Your task to perform on an android device: What is the news today? Image 0: 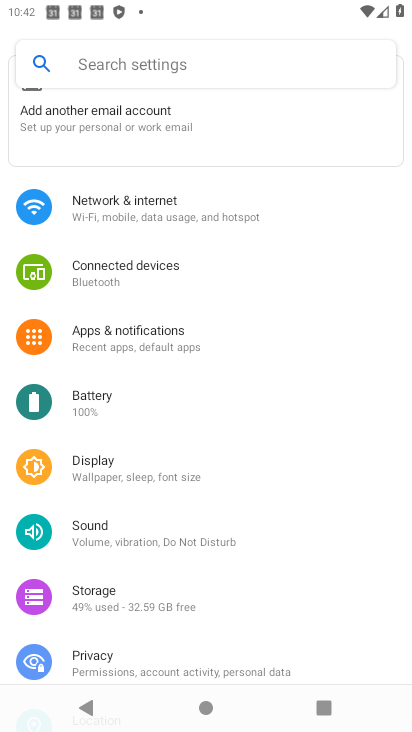
Step 0: press home button
Your task to perform on an android device: What is the news today? Image 1: 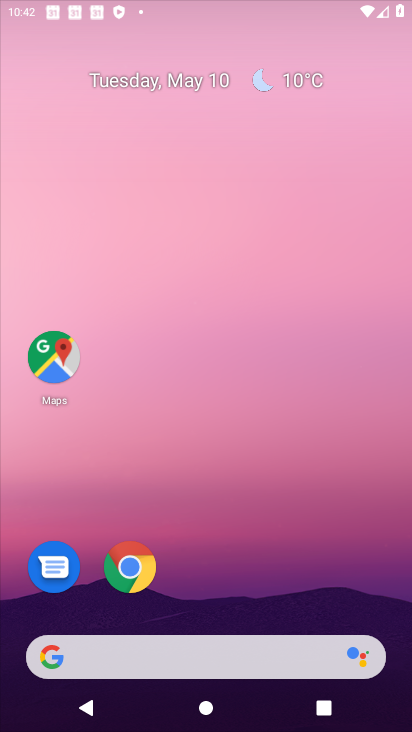
Step 1: drag from (282, 697) to (302, 93)
Your task to perform on an android device: What is the news today? Image 2: 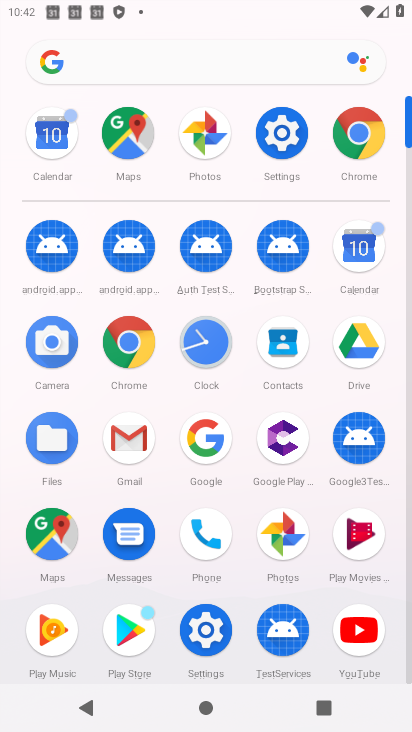
Step 2: click (118, 356)
Your task to perform on an android device: What is the news today? Image 3: 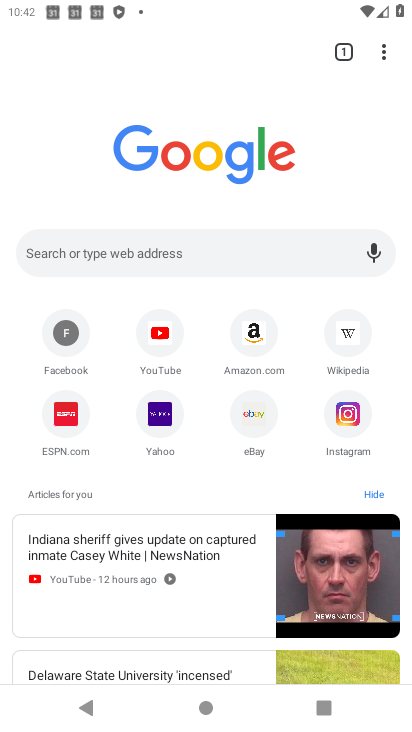
Step 3: click (268, 241)
Your task to perform on an android device: What is the news today? Image 4: 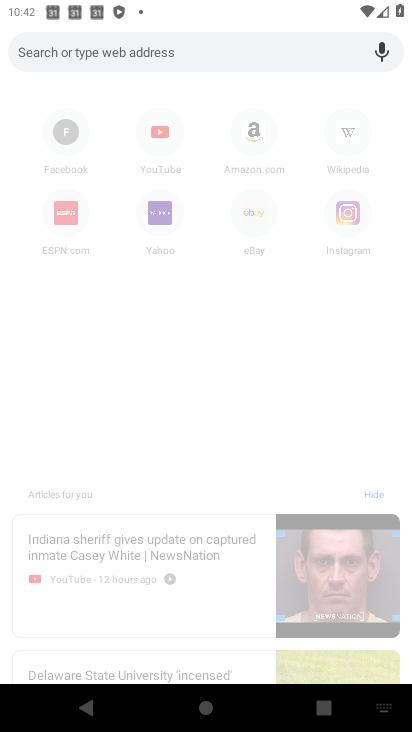
Step 4: type "news today"
Your task to perform on an android device: What is the news today? Image 5: 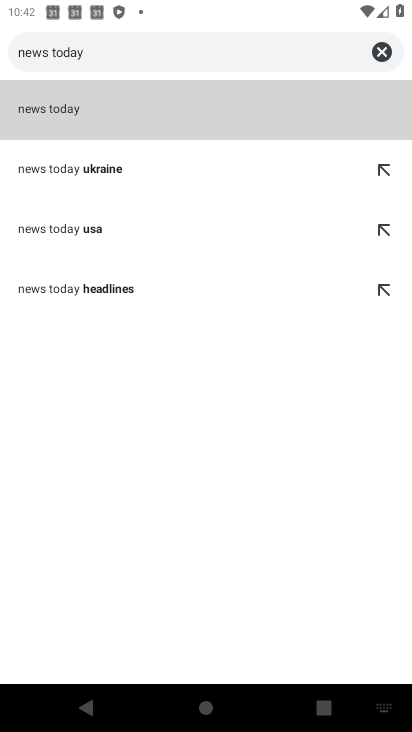
Step 5: click (95, 119)
Your task to perform on an android device: What is the news today? Image 6: 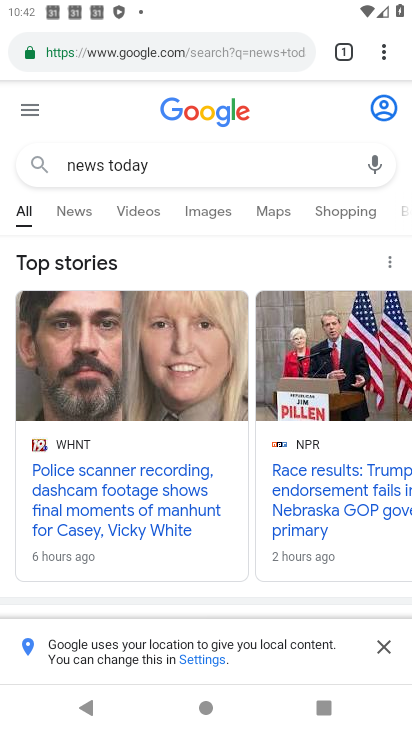
Step 6: task complete